Your task to perform on an android device: Go to ESPN.com Image 0: 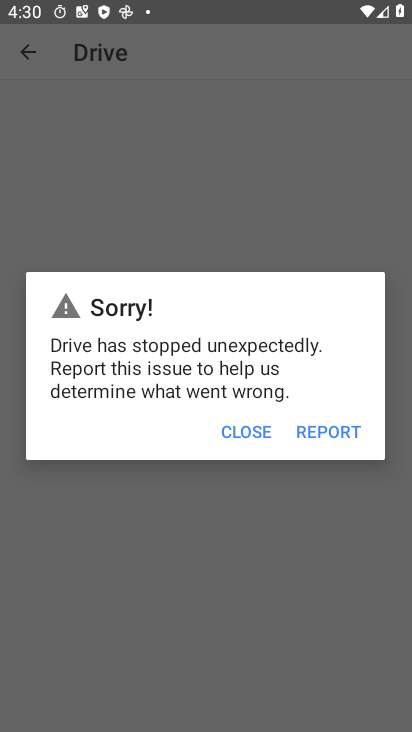
Step 0: drag from (318, 708) to (281, 195)
Your task to perform on an android device: Go to ESPN.com Image 1: 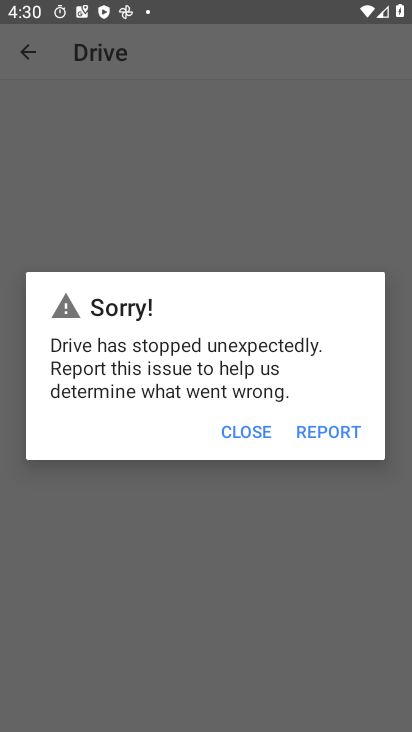
Step 1: click (248, 431)
Your task to perform on an android device: Go to ESPN.com Image 2: 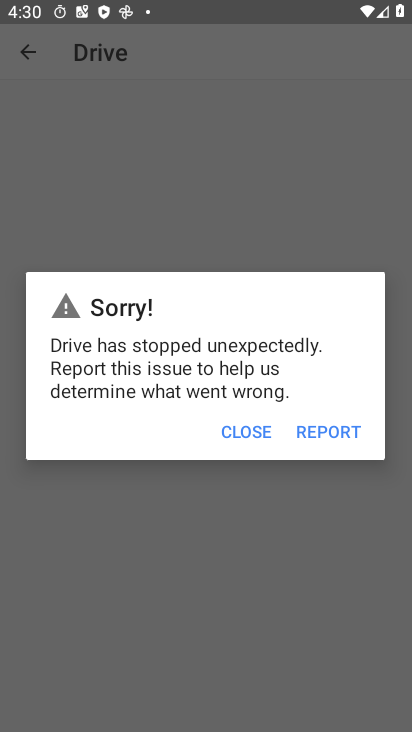
Step 2: click (248, 431)
Your task to perform on an android device: Go to ESPN.com Image 3: 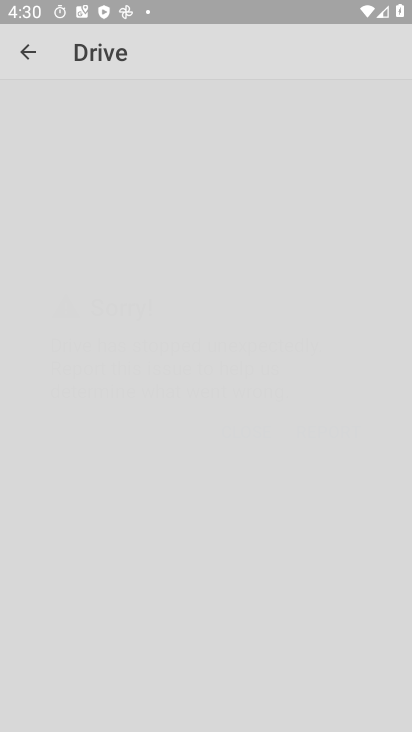
Step 3: click (248, 431)
Your task to perform on an android device: Go to ESPN.com Image 4: 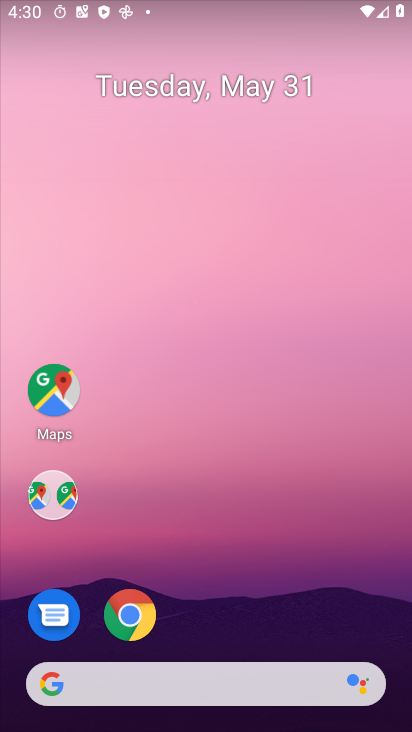
Step 4: drag from (267, 573) to (172, 16)
Your task to perform on an android device: Go to ESPN.com Image 5: 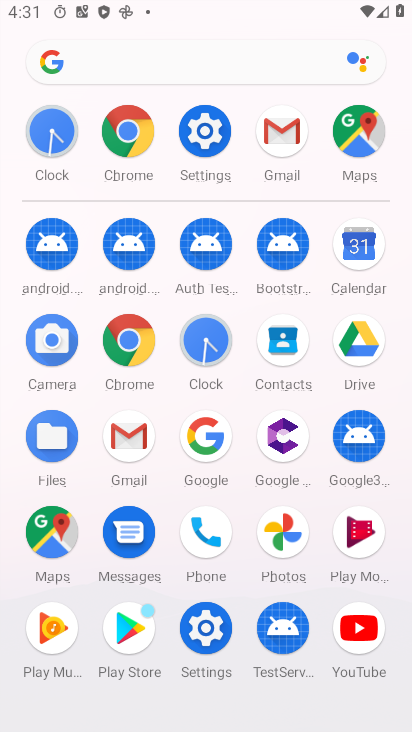
Step 5: click (120, 334)
Your task to perform on an android device: Go to ESPN.com Image 6: 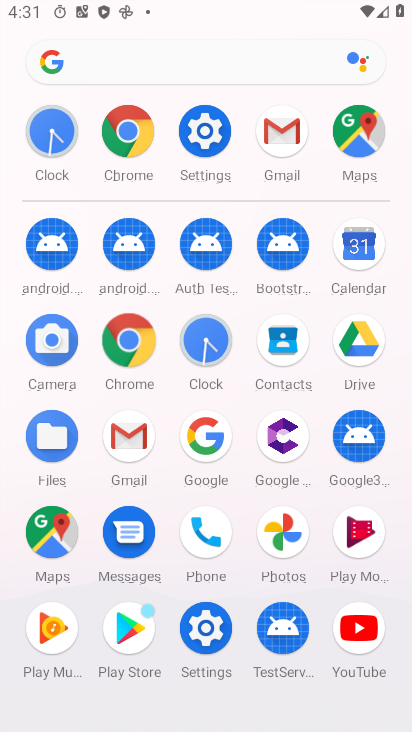
Step 6: click (120, 334)
Your task to perform on an android device: Go to ESPN.com Image 7: 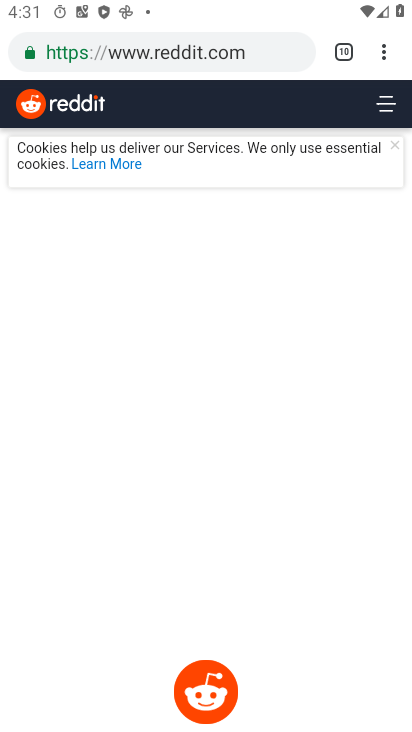
Step 7: click (374, 57)
Your task to perform on an android device: Go to ESPN.com Image 8: 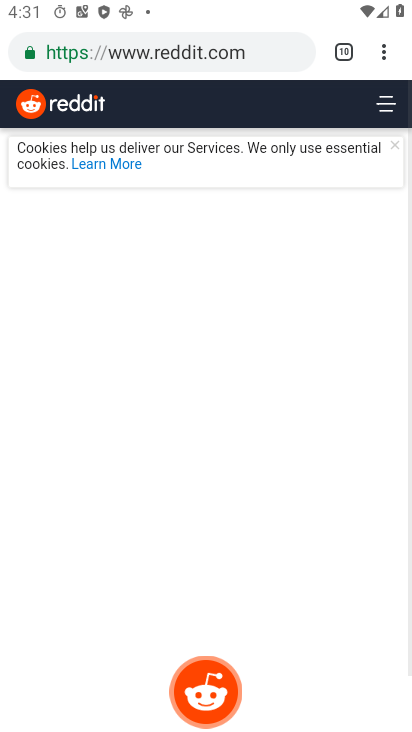
Step 8: drag from (376, 47) to (203, 103)
Your task to perform on an android device: Go to ESPN.com Image 9: 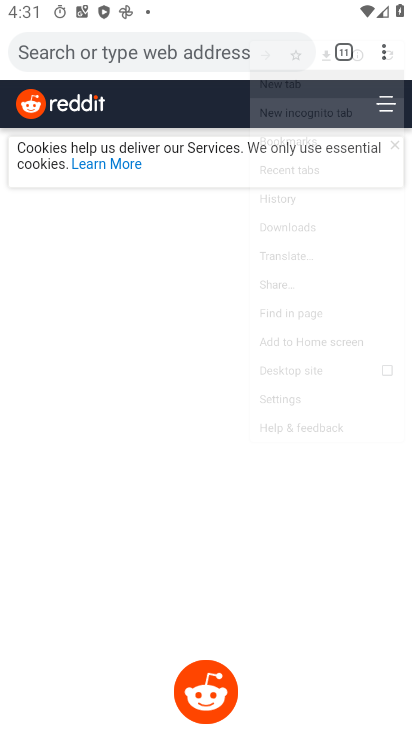
Step 9: click (203, 103)
Your task to perform on an android device: Go to ESPN.com Image 10: 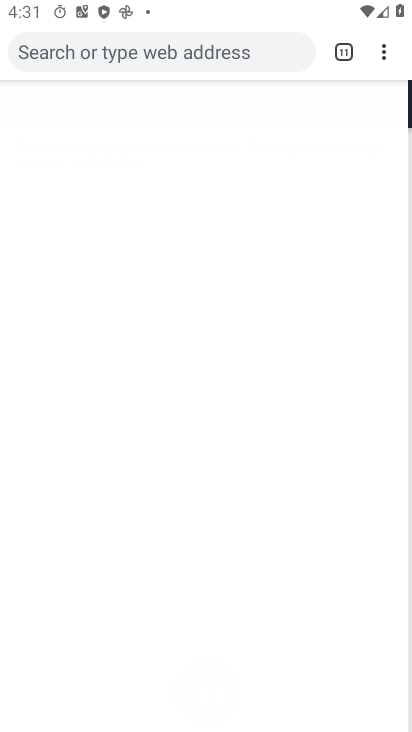
Step 10: click (203, 103)
Your task to perform on an android device: Go to ESPN.com Image 11: 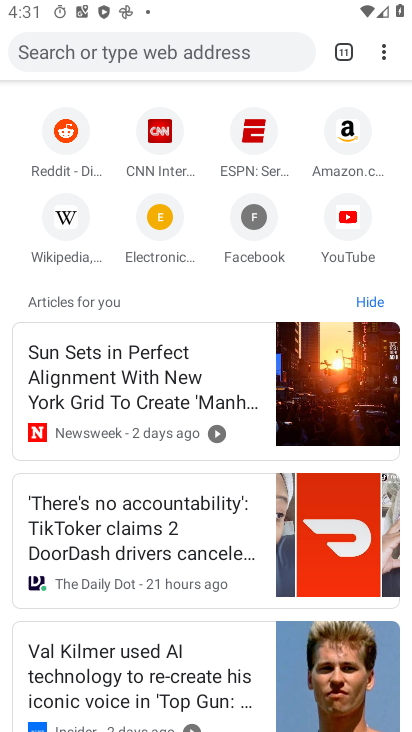
Step 11: click (262, 132)
Your task to perform on an android device: Go to ESPN.com Image 12: 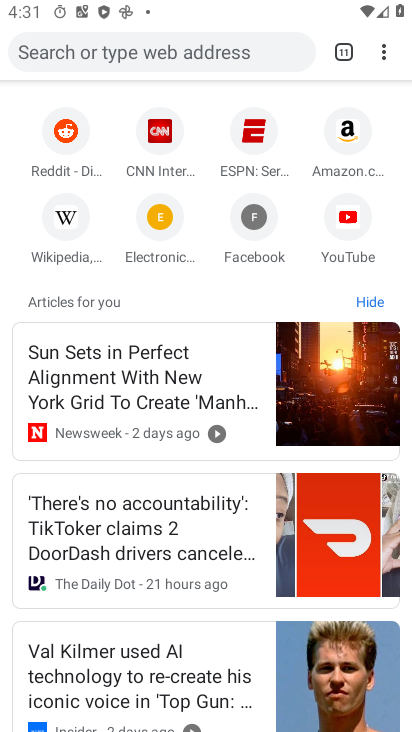
Step 12: click (262, 131)
Your task to perform on an android device: Go to ESPN.com Image 13: 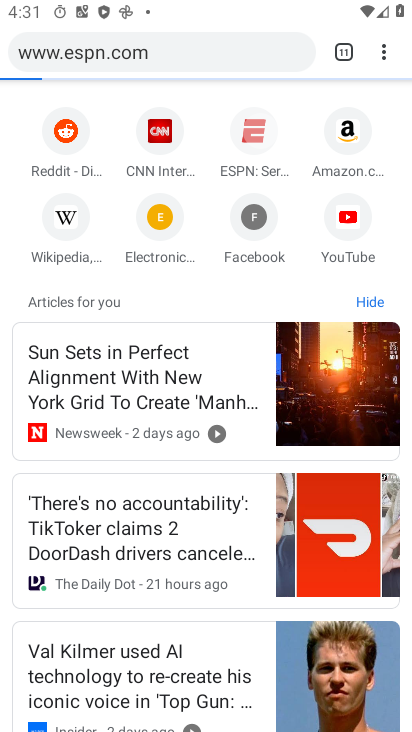
Step 13: click (262, 131)
Your task to perform on an android device: Go to ESPN.com Image 14: 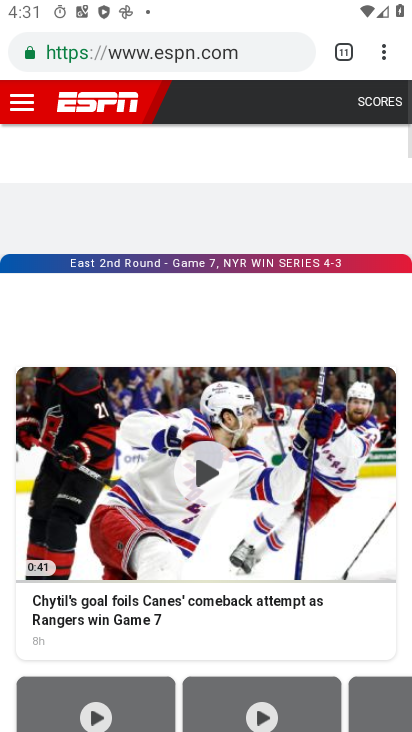
Step 14: task complete